Your task to perform on an android device: visit the assistant section in the google photos Image 0: 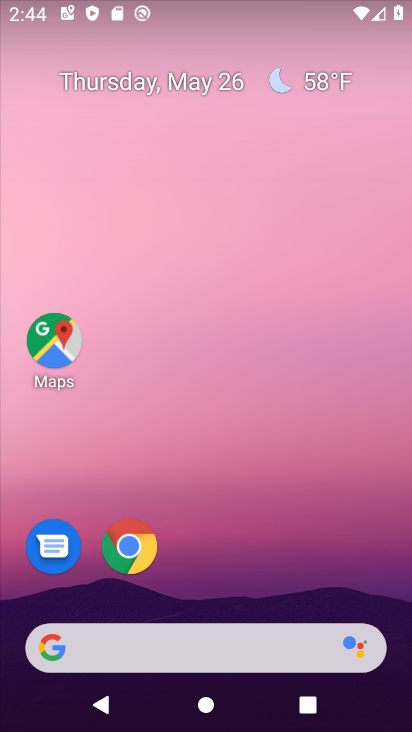
Step 0: press home button
Your task to perform on an android device: visit the assistant section in the google photos Image 1: 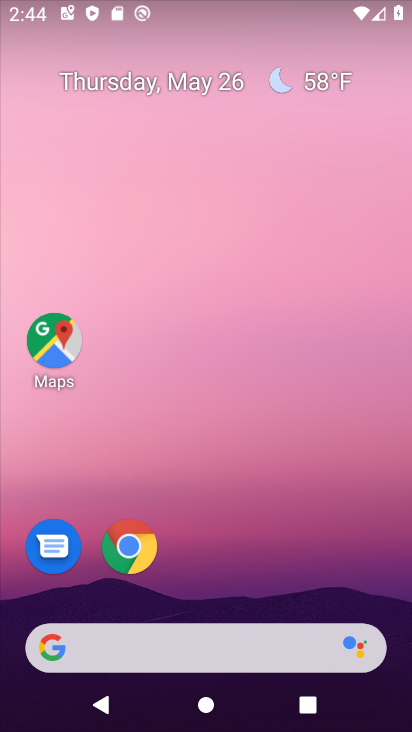
Step 1: press home button
Your task to perform on an android device: visit the assistant section in the google photos Image 2: 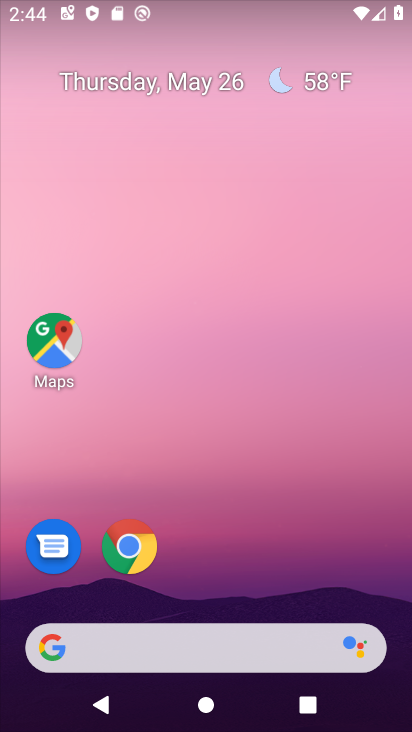
Step 2: drag from (214, 584) to (265, 0)
Your task to perform on an android device: visit the assistant section in the google photos Image 3: 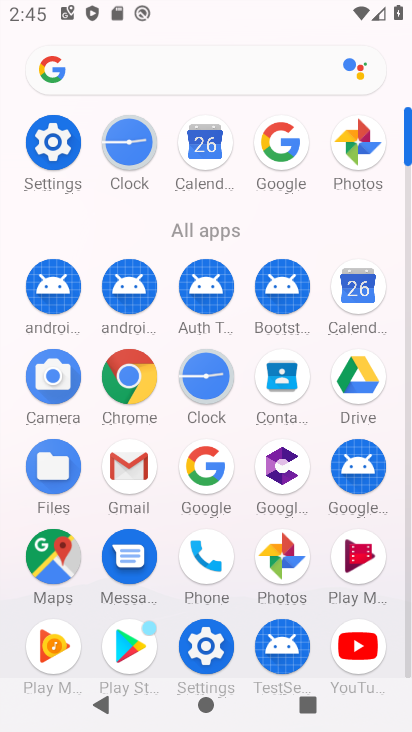
Step 3: click (284, 548)
Your task to perform on an android device: visit the assistant section in the google photos Image 4: 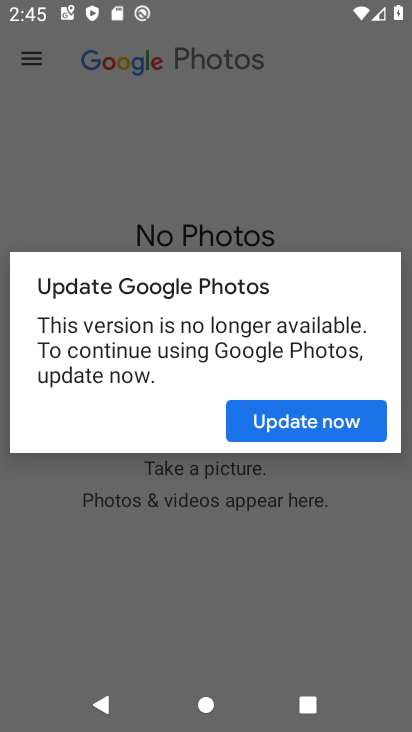
Step 4: click (256, 419)
Your task to perform on an android device: visit the assistant section in the google photos Image 5: 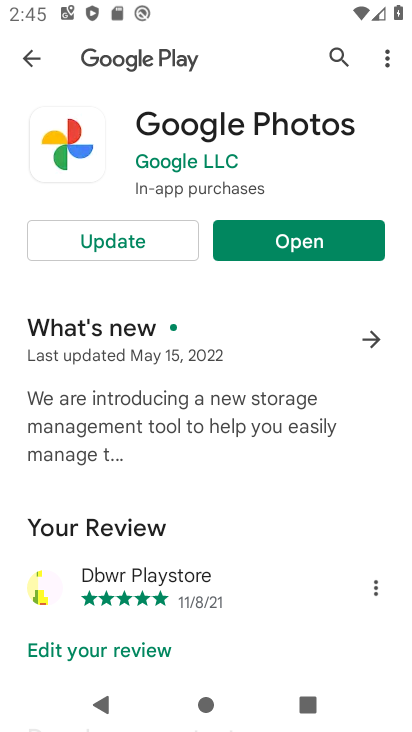
Step 5: click (103, 240)
Your task to perform on an android device: visit the assistant section in the google photos Image 6: 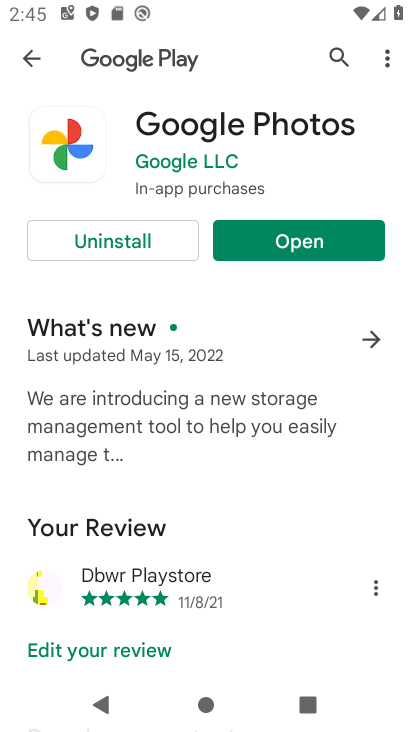
Step 6: click (289, 241)
Your task to perform on an android device: visit the assistant section in the google photos Image 7: 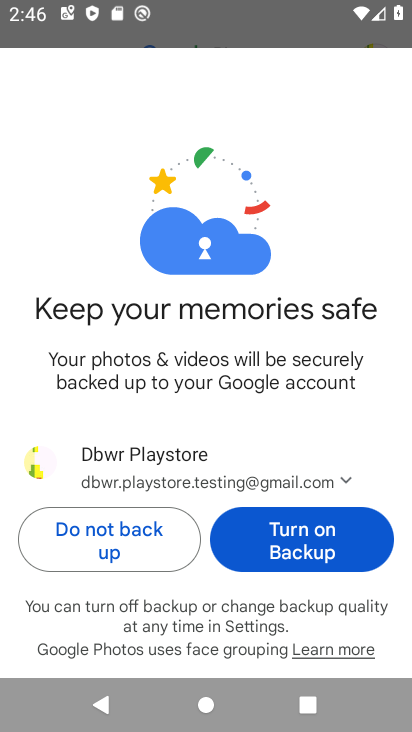
Step 7: click (308, 542)
Your task to perform on an android device: visit the assistant section in the google photos Image 8: 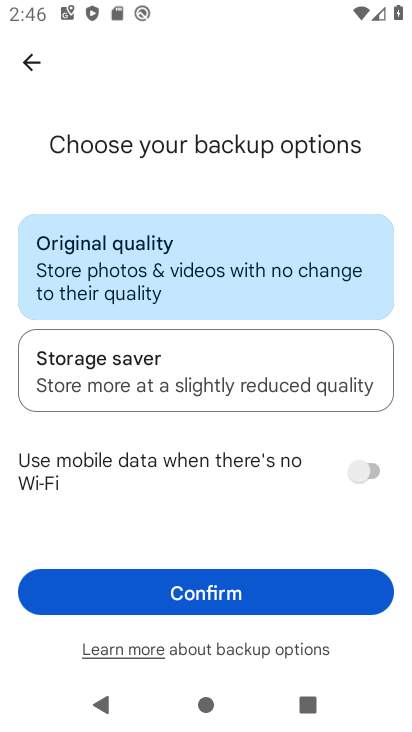
Step 8: click (200, 586)
Your task to perform on an android device: visit the assistant section in the google photos Image 9: 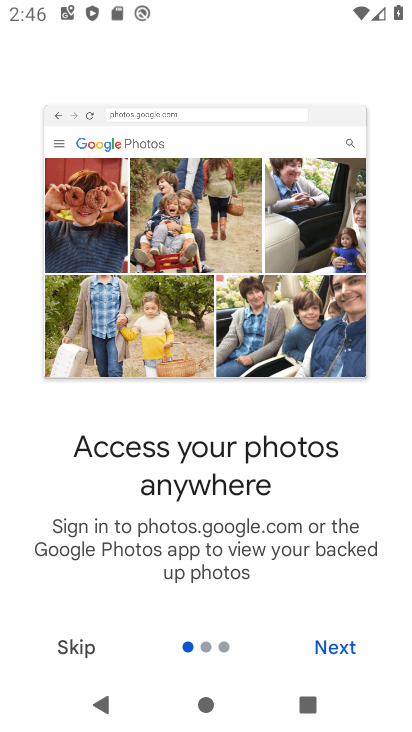
Step 9: click (337, 643)
Your task to perform on an android device: visit the assistant section in the google photos Image 10: 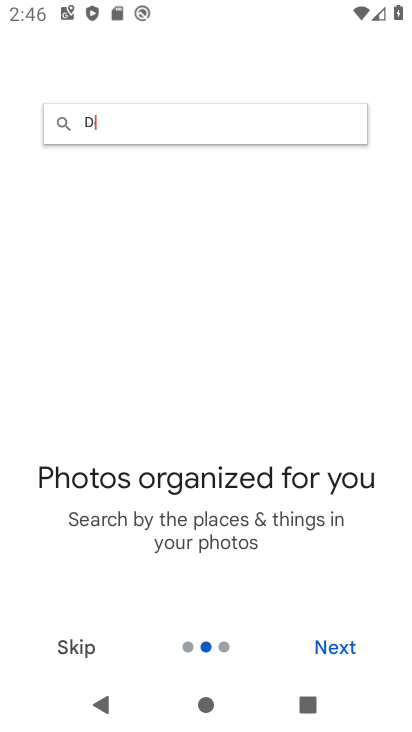
Step 10: click (337, 643)
Your task to perform on an android device: visit the assistant section in the google photos Image 11: 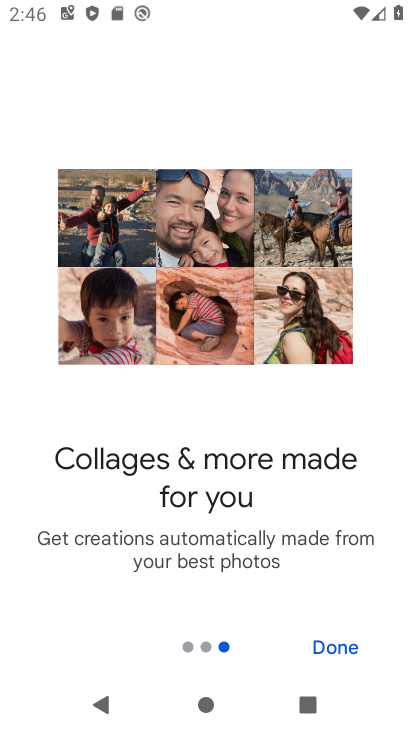
Step 11: click (337, 643)
Your task to perform on an android device: visit the assistant section in the google photos Image 12: 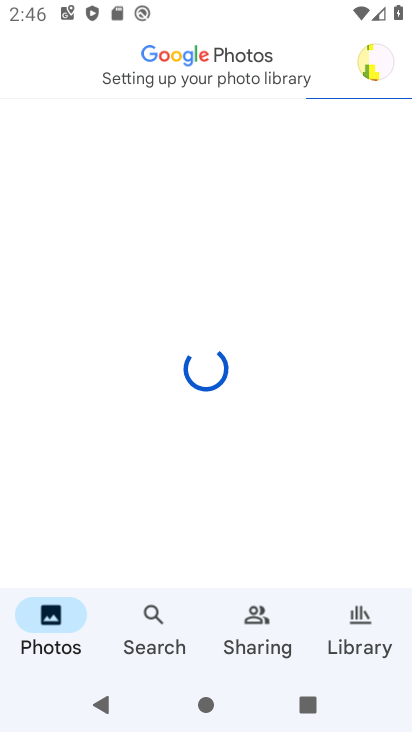
Step 12: task complete